Your task to perform on an android device: Open battery settings Image 0: 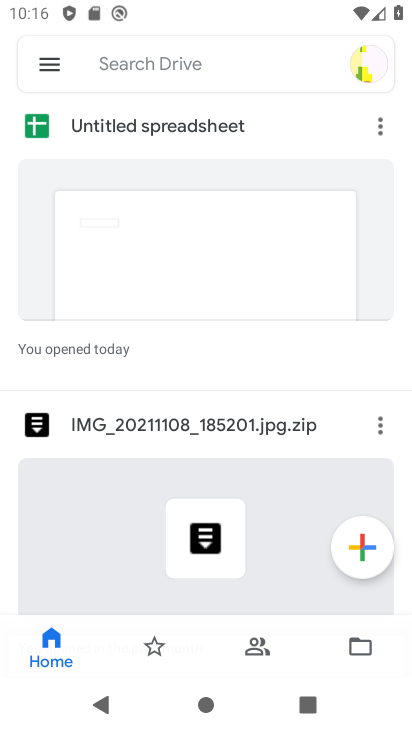
Step 0: press back button
Your task to perform on an android device: Open battery settings Image 1: 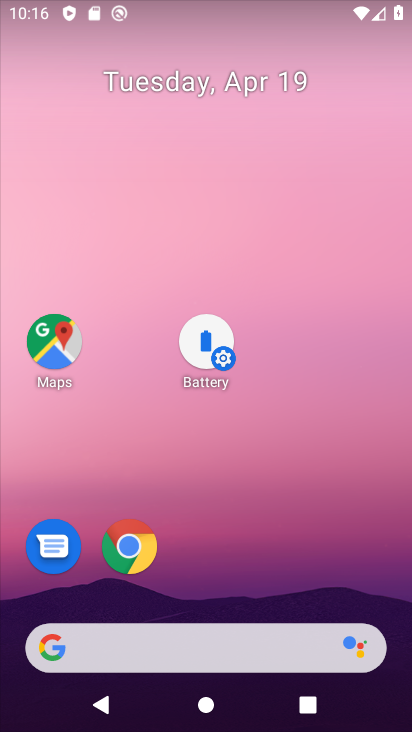
Step 1: click (241, 553)
Your task to perform on an android device: Open battery settings Image 2: 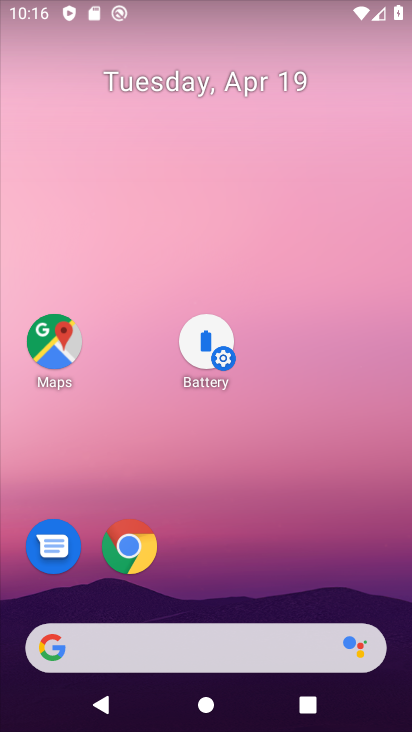
Step 2: click (200, 334)
Your task to perform on an android device: Open battery settings Image 3: 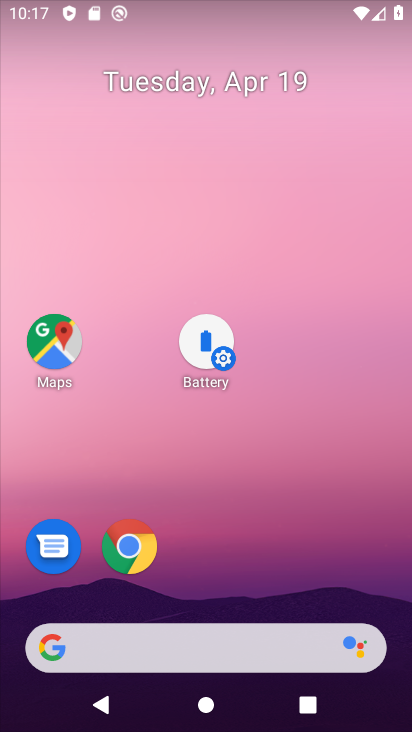
Step 3: click (206, 347)
Your task to perform on an android device: Open battery settings Image 4: 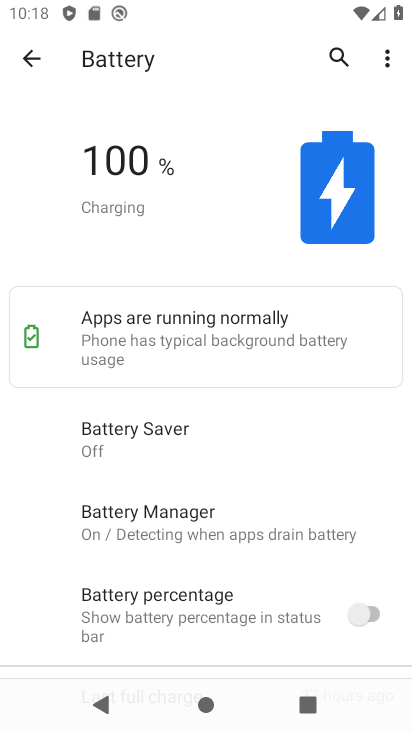
Step 4: task complete